Your task to perform on an android device: turn off notifications in google photos Image 0: 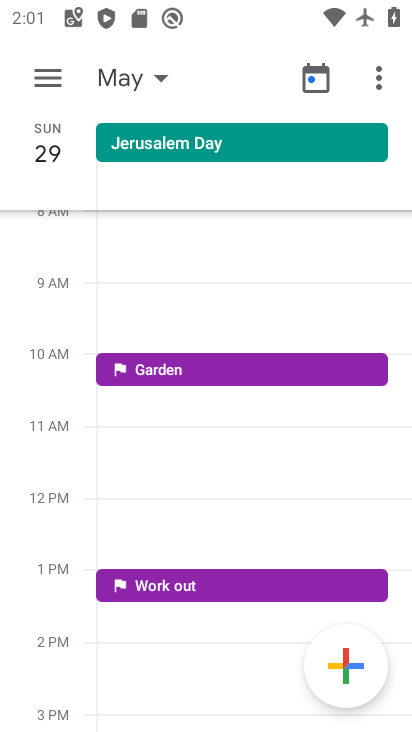
Step 0: press home button
Your task to perform on an android device: turn off notifications in google photos Image 1: 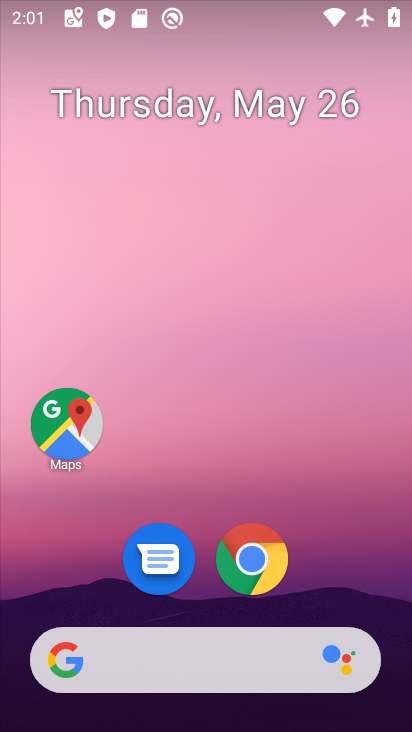
Step 1: drag from (143, 655) to (345, 134)
Your task to perform on an android device: turn off notifications in google photos Image 2: 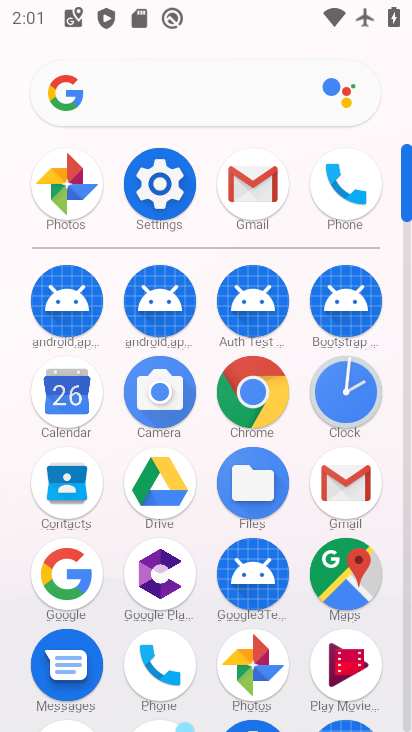
Step 2: click (263, 657)
Your task to perform on an android device: turn off notifications in google photos Image 3: 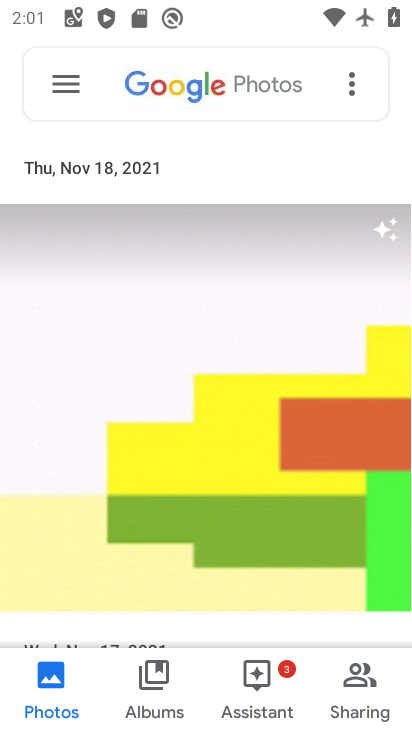
Step 3: click (66, 85)
Your task to perform on an android device: turn off notifications in google photos Image 4: 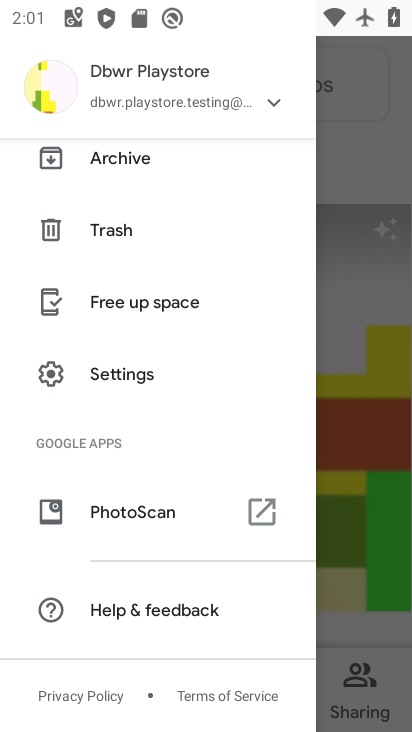
Step 4: click (127, 371)
Your task to perform on an android device: turn off notifications in google photos Image 5: 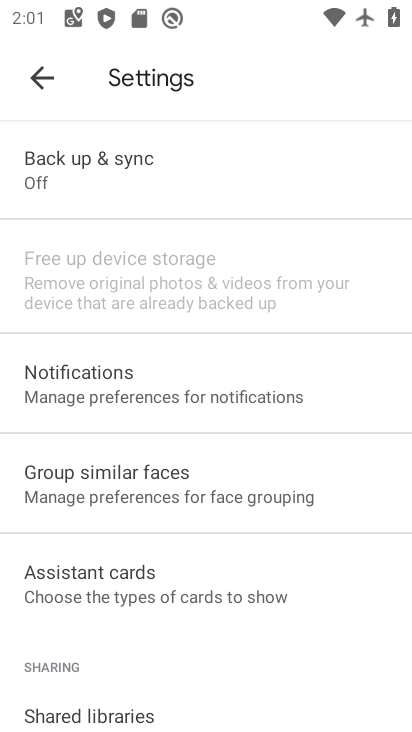
Step 5: click (172, 383)
Your task to perform on an android device: turn off notifications in google photos Image 6: 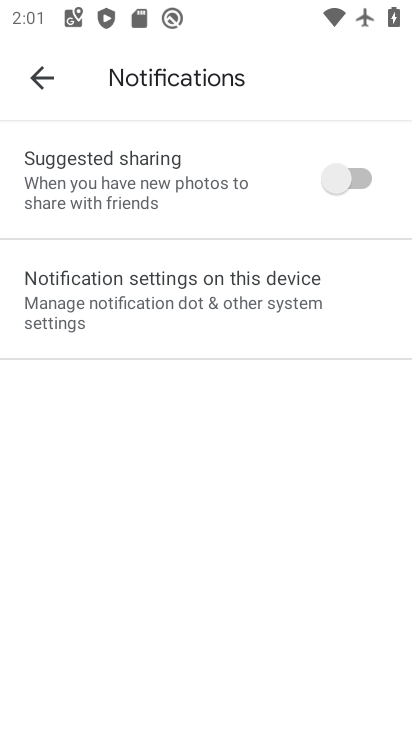
Step 6: click (158, 297)
Your task to perform on an android device: turn off notifications in google photos Image 7: 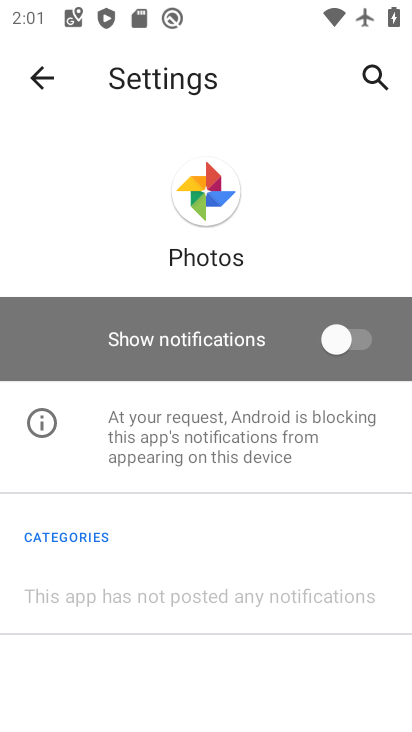
Step 7: task complete